Your task to perform on an android device: add a label to a message in the gmail app Image 0: 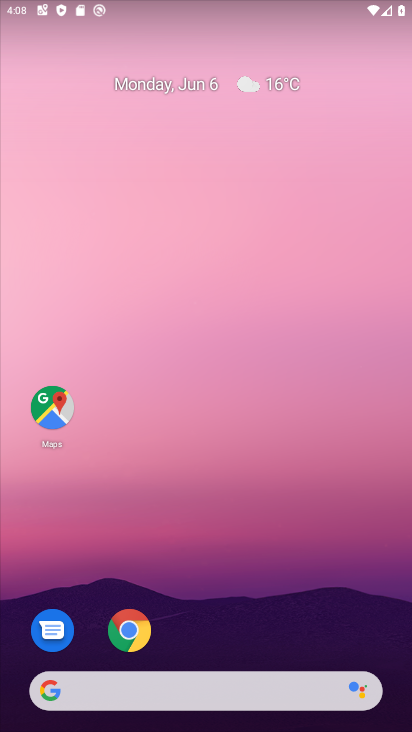
Step 0: drag from (234, 539) to (321, 33)
Your task to perform on an android device: add a label to a message in the gmail app Image 1: 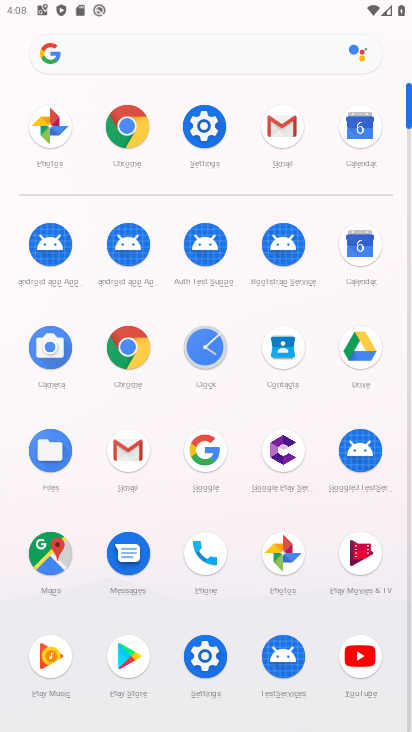
Step 1: click (291, 106)
Your task to perform on an android device: add a label to a message in the gmail app Image 2: 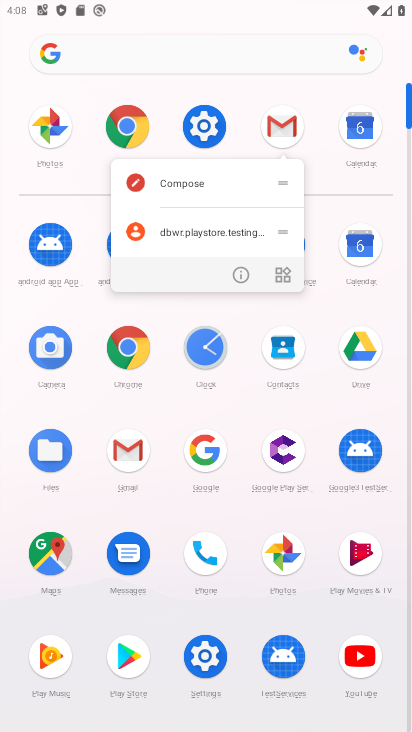
Step 2: click (291, 123)
Your task to perform on an android device: add a label to a message in the gmail app Image 3: 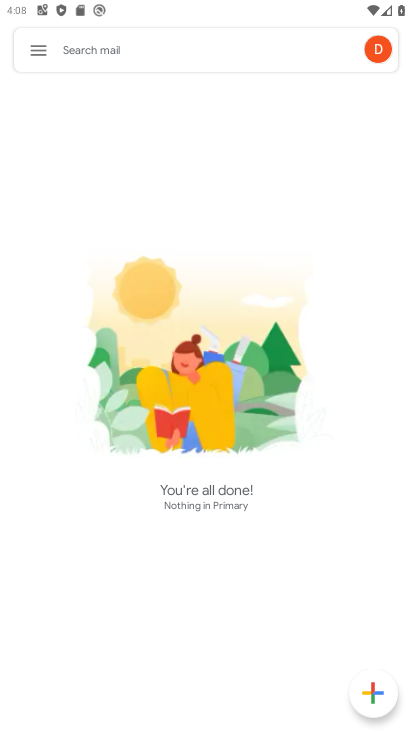
Step 3: click (20, 48)
Your task to perform on an android device: add a label to a message in the gmail app Image 4: 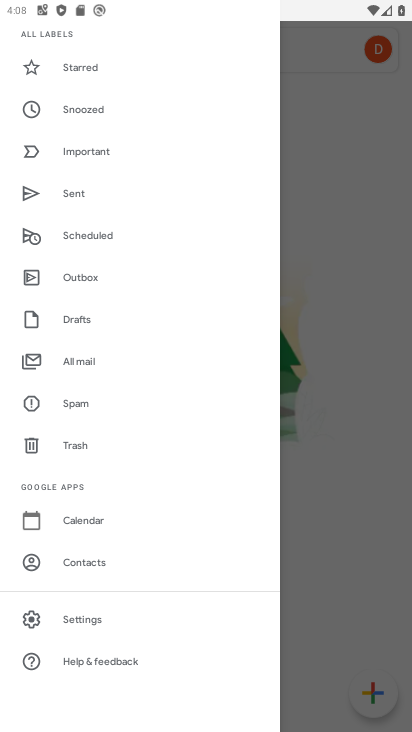
Step 4: click (66, 361)
Your task to perform on an android device: add a label to a message in the gmail app Image 5: 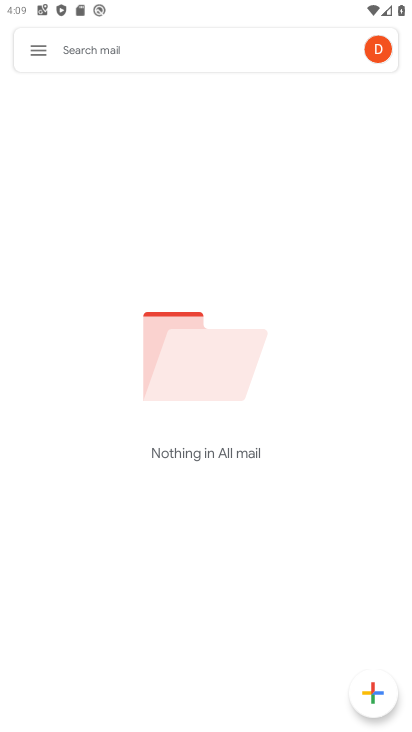
Step 5: task complete